Your task to perform on an android device: Open the stopwatch Image 0: 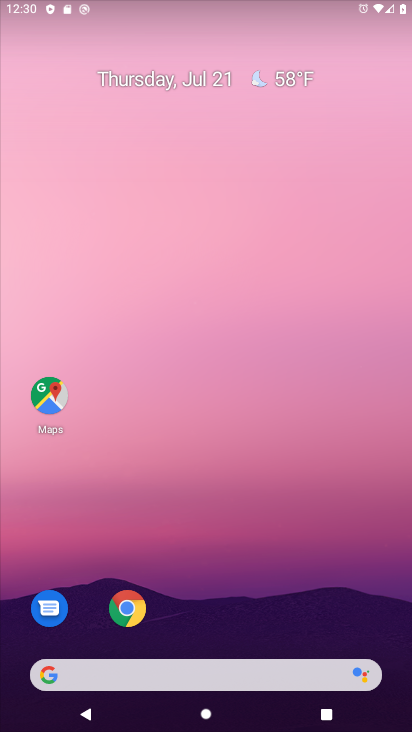
Step 0: press home button
Your task to perform on an android device: Open the stopwatch Image 1: 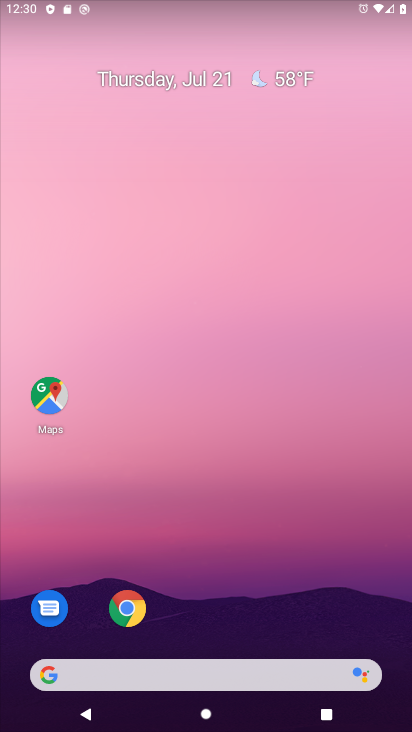
Step 1: drag from (208, 635) to (251, 164)
Your task to perform on an android device: Open the stopwatch Image 2: 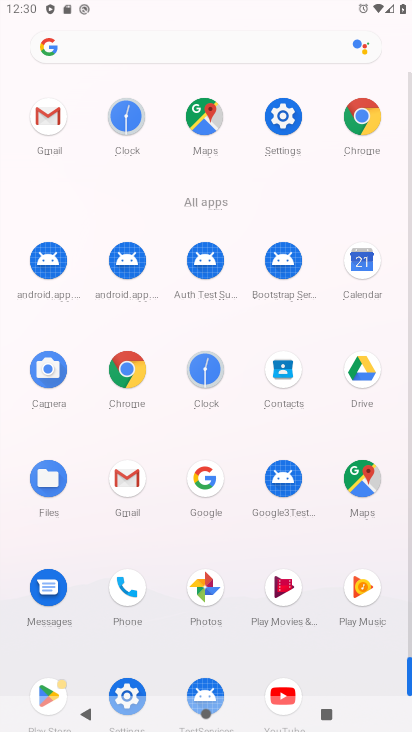
Step 2: click (117, 108)
Your task to perform on an android device: Open the stopwatch Image 3: 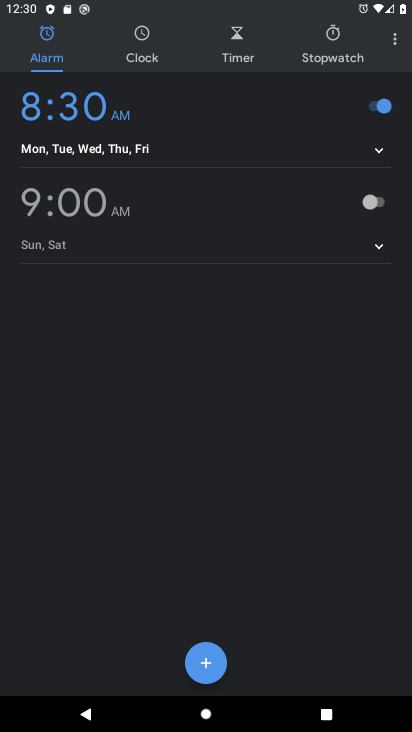
Step 3: click (330, 39)
Your task to perform on an android device: Open the stopwatch Image 4: 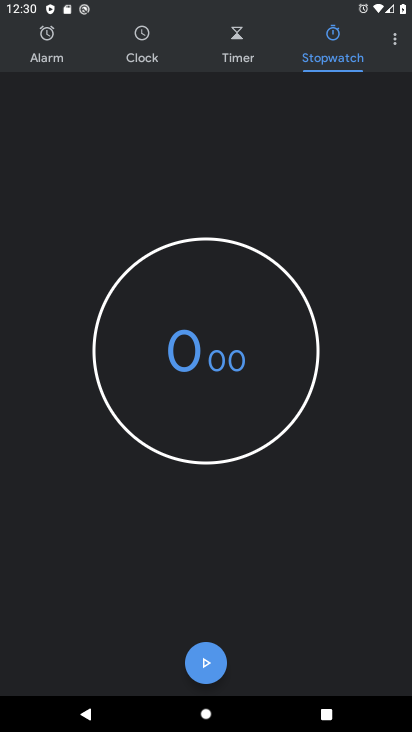
Step 4: click (206, 655)
Your task to perform on an android device: Open the stopwatch Image 5: 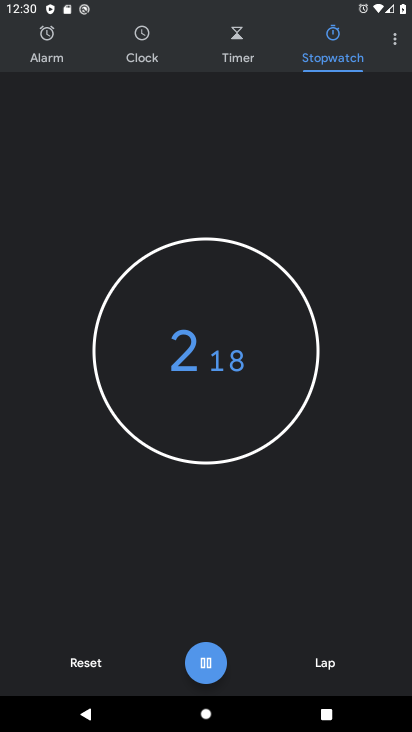
Step 5: task complete